Your task to perform on an android device: install app "ZOOM Cloud Meetings" Image 0: 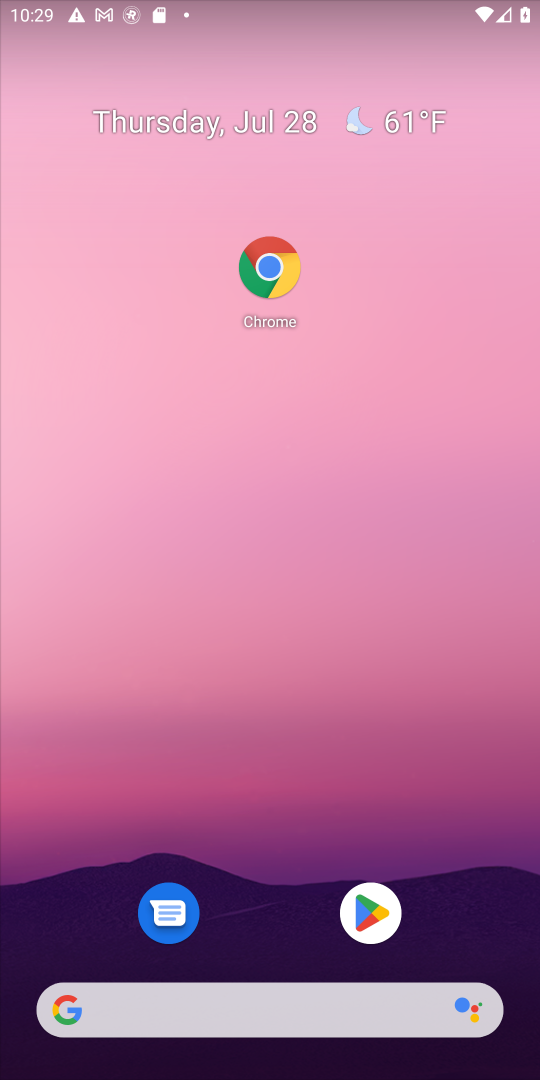
Step 0: click (373, 914)
Your task to perform on an android device: install app "ZOOM Cloud Meetings" Image 1: 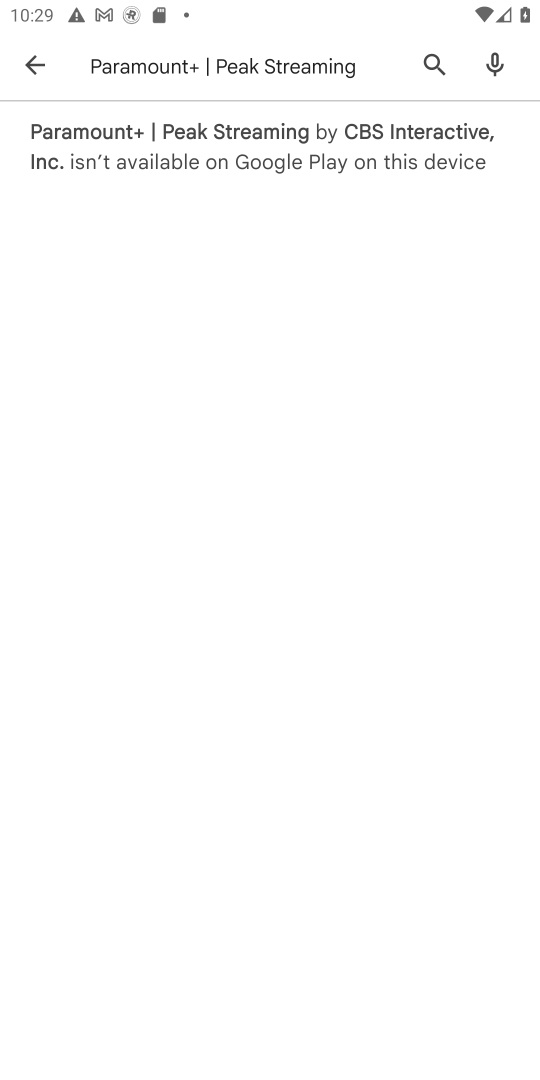
Step 1: click (435, 58)
Your task to perform on an android device: install app "ZOOM Cloud Meetings" Image 2: 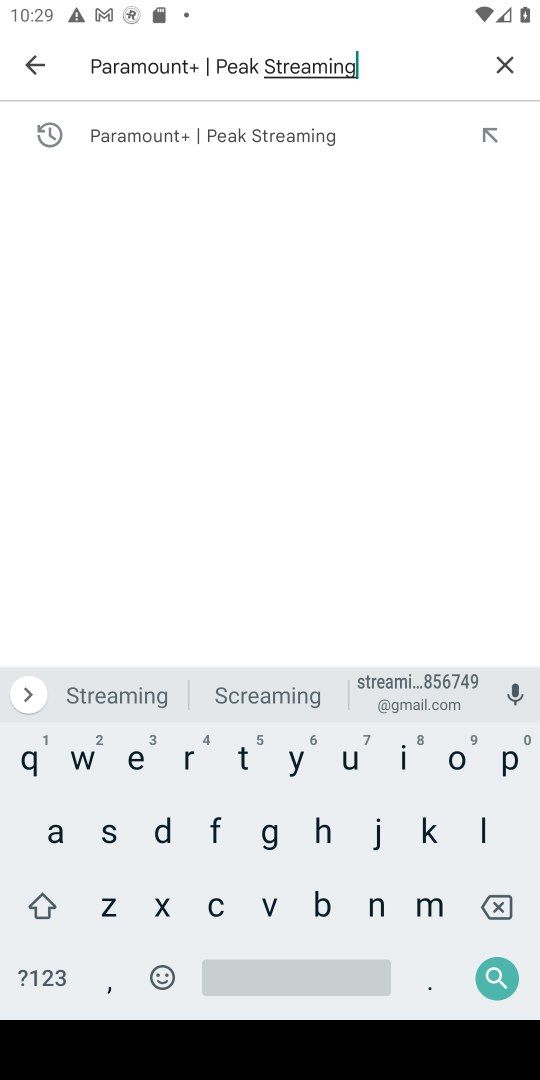
Step 2: click (504, 63)
Your task to perform on an android device: install app "ZOOM Cloud Meetings" Image 3: 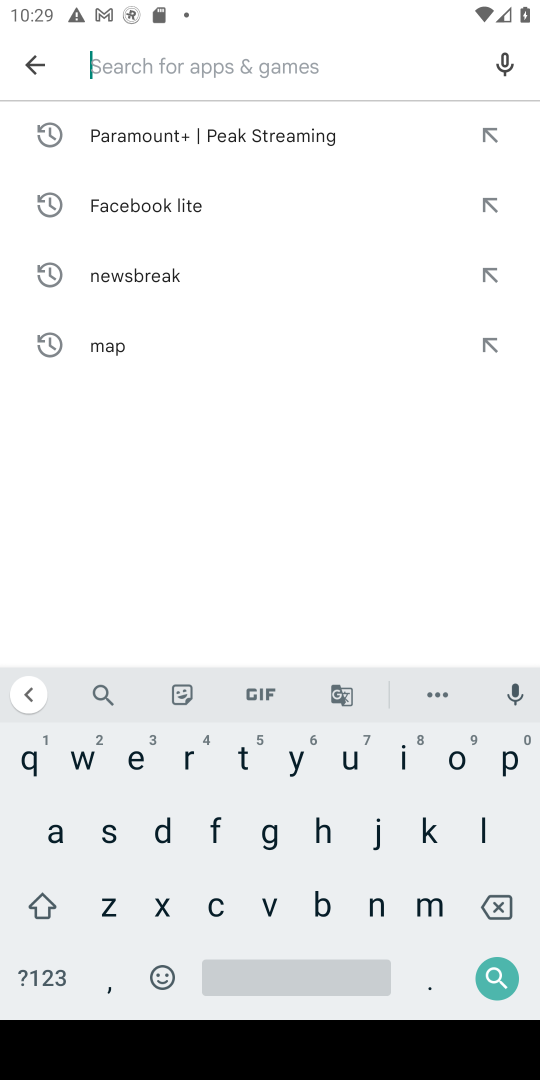
Step 3: click (106, 911)
Your task to perform on an android device: install app "ZOOM Cloud Meetings" Image 4: 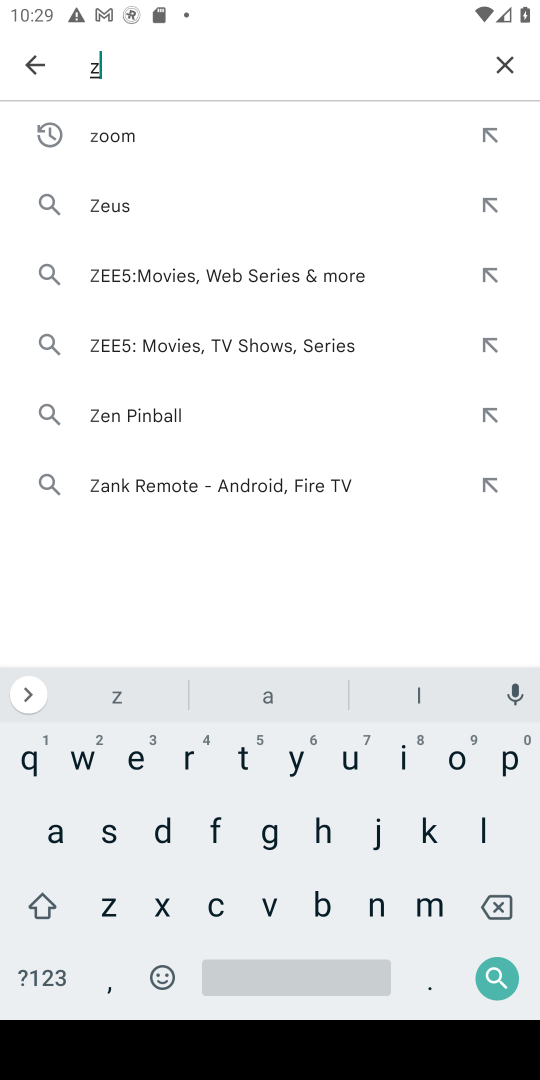
Step 4: click (128, 127)
Your task to perform on an android device: install app "ZOOM Cloud Meetings" Image 5: 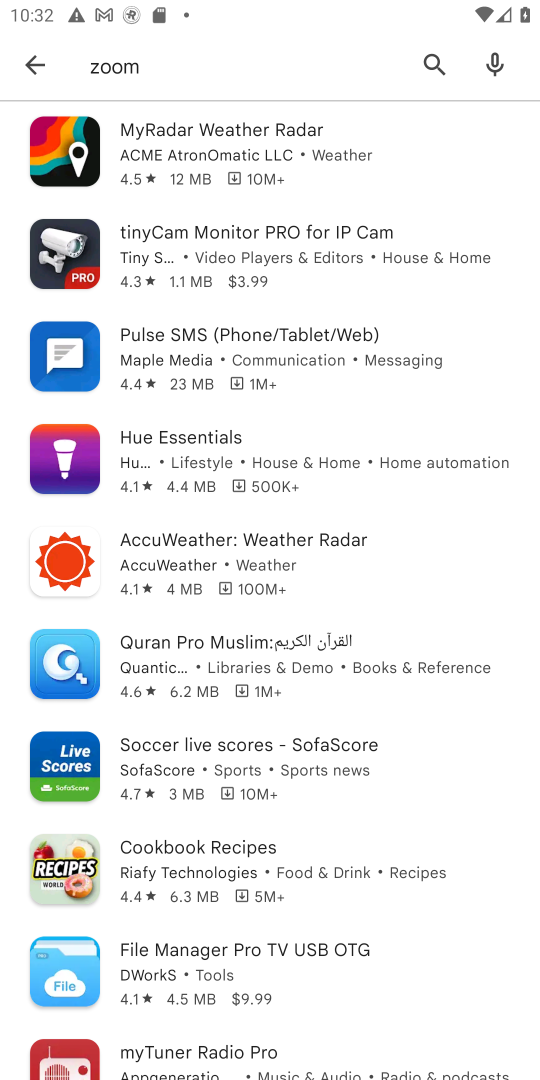
Step 5: task complete